Your task to perform on an android device: check data usage Image 0: 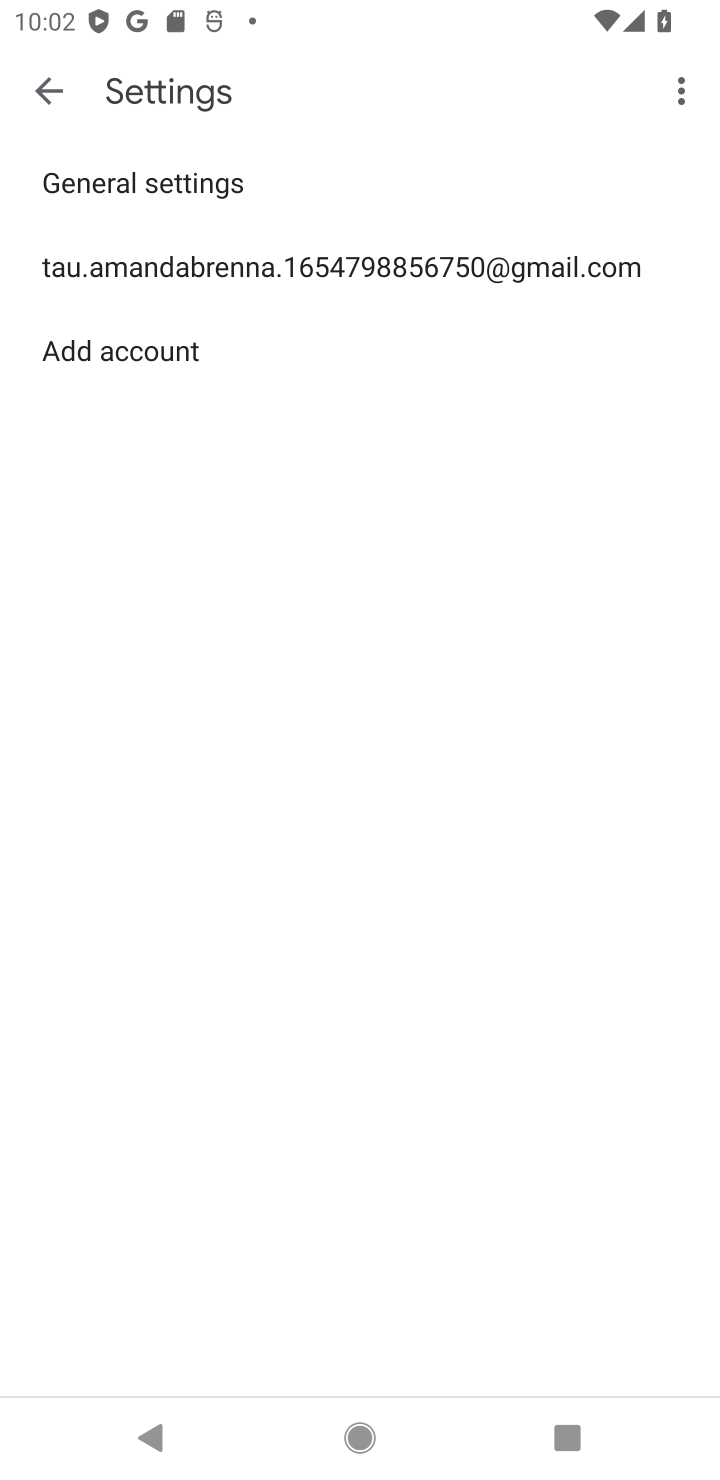
Step 0: press home button
Your task to perform on an android device: check data usage Image 1: 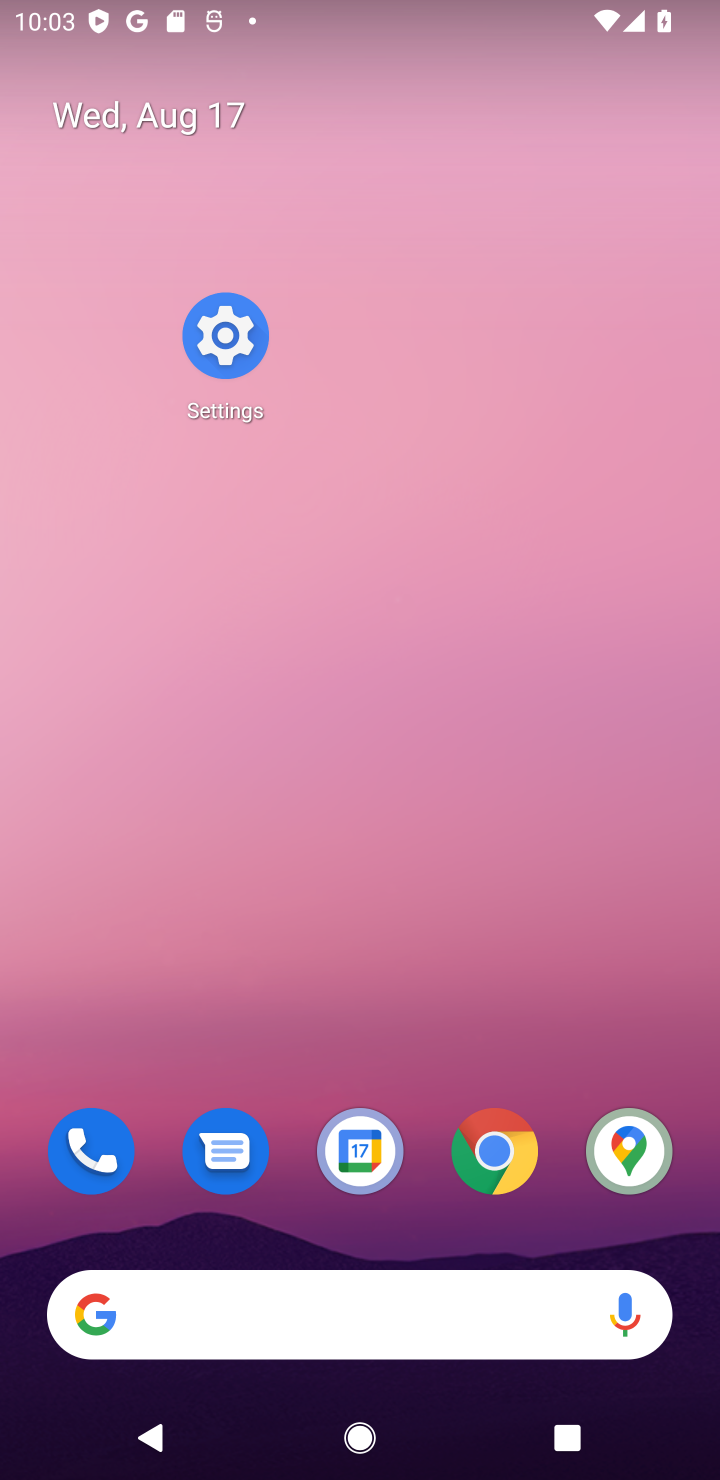
Step 1: drag from (364, 1193) to (370, 56)
Your task to perform on an android device: check data usage Image 2: 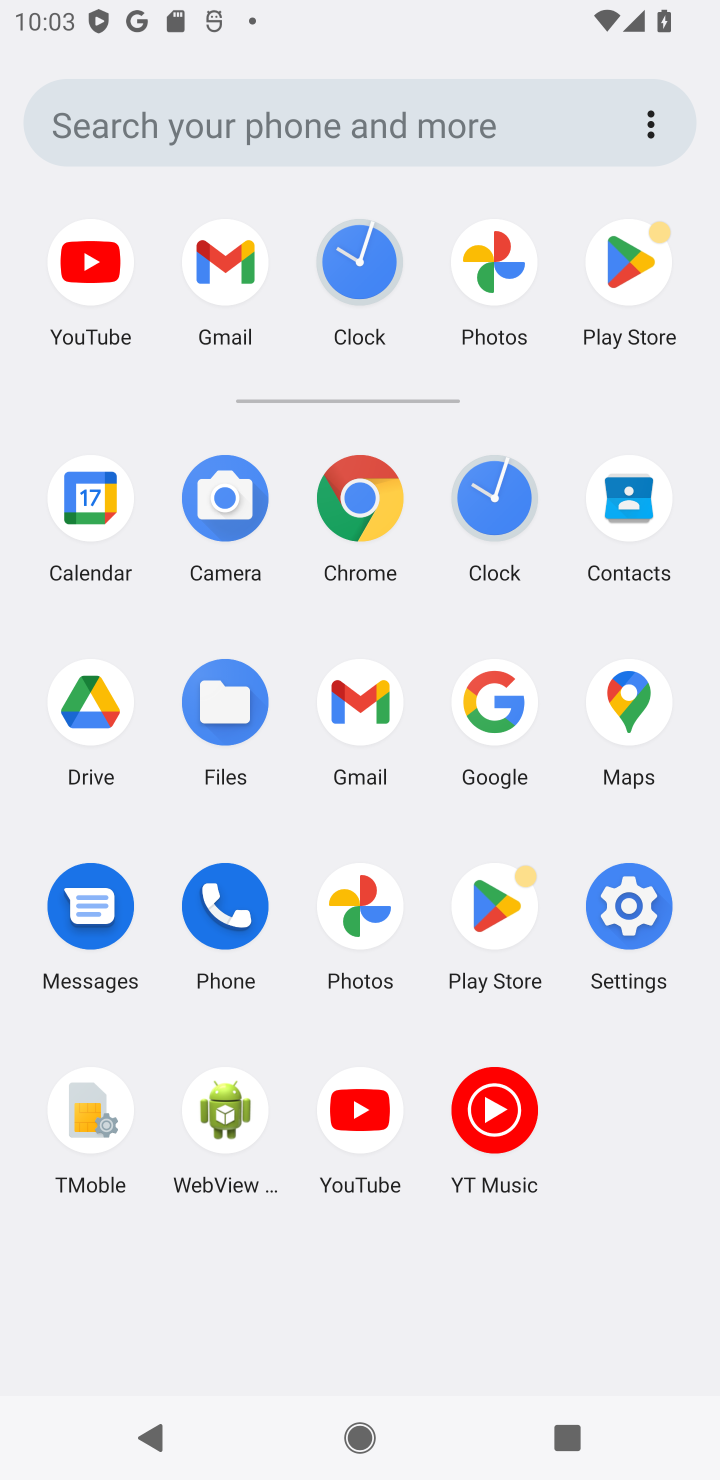
Step 2: click (625, 916)
Your task to perform on an android device: check data usage Image 3: 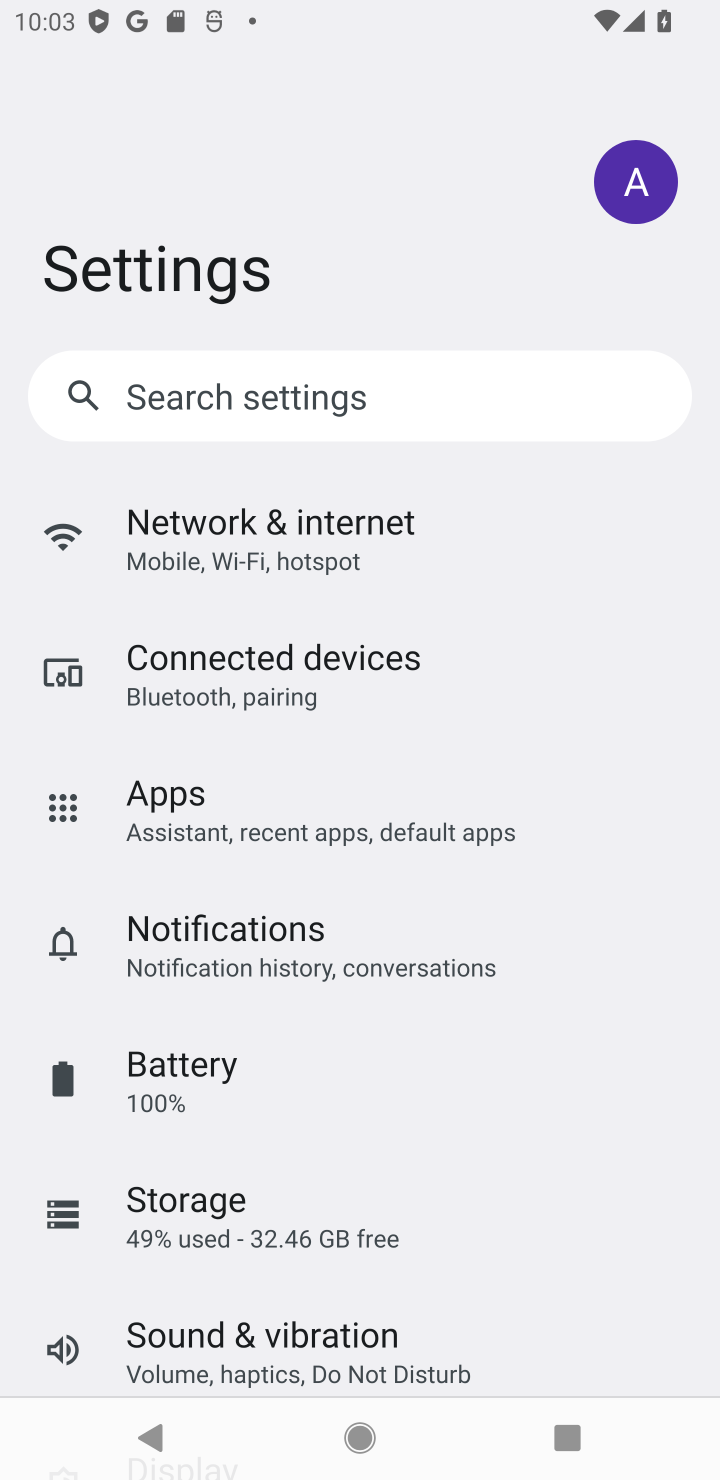
Step 3: click (280, 518)
Your task to perform on an android device: check data usage Image 4: 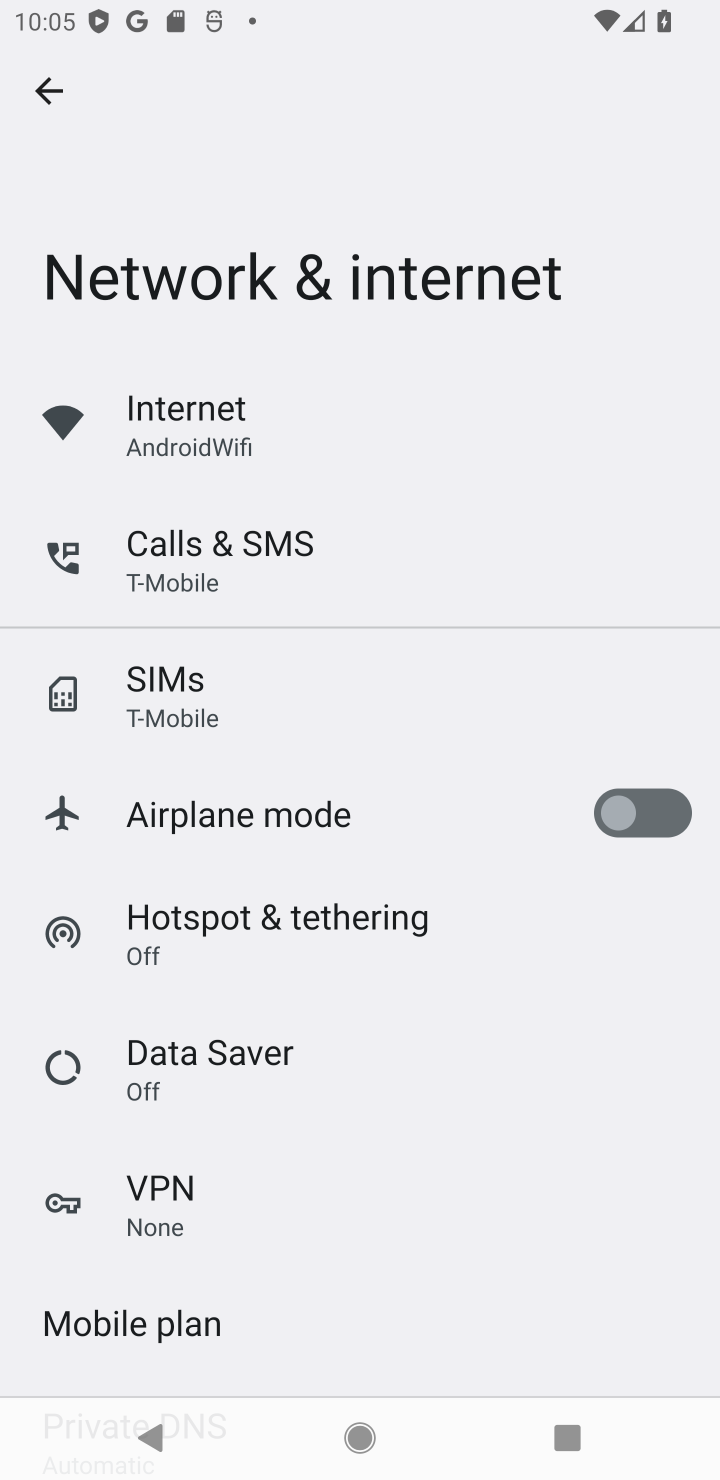
Step 4: click (204, 436)
Your task to perform on an android device: check data usage Image 5: 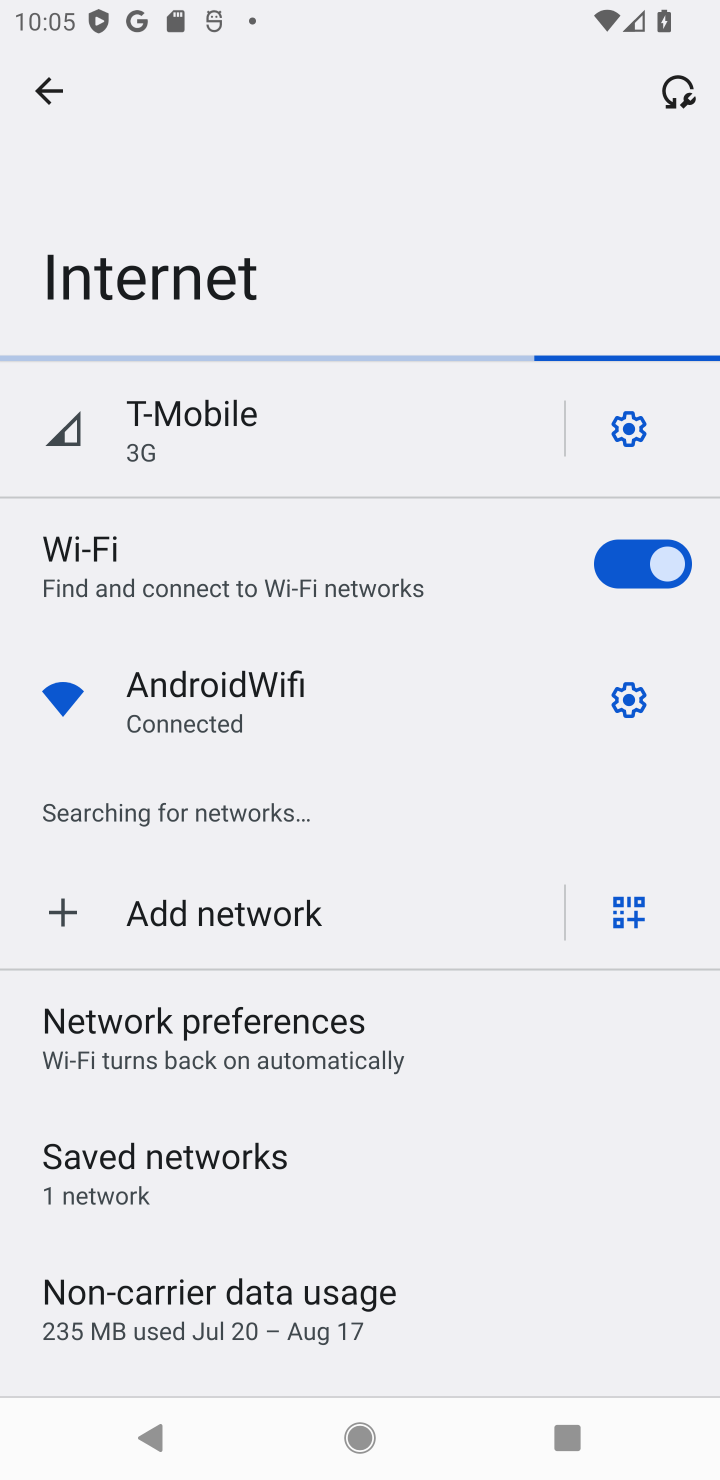
Step 5: click (211, 436)
Your task to perform on an android device: check data usage Image 6: 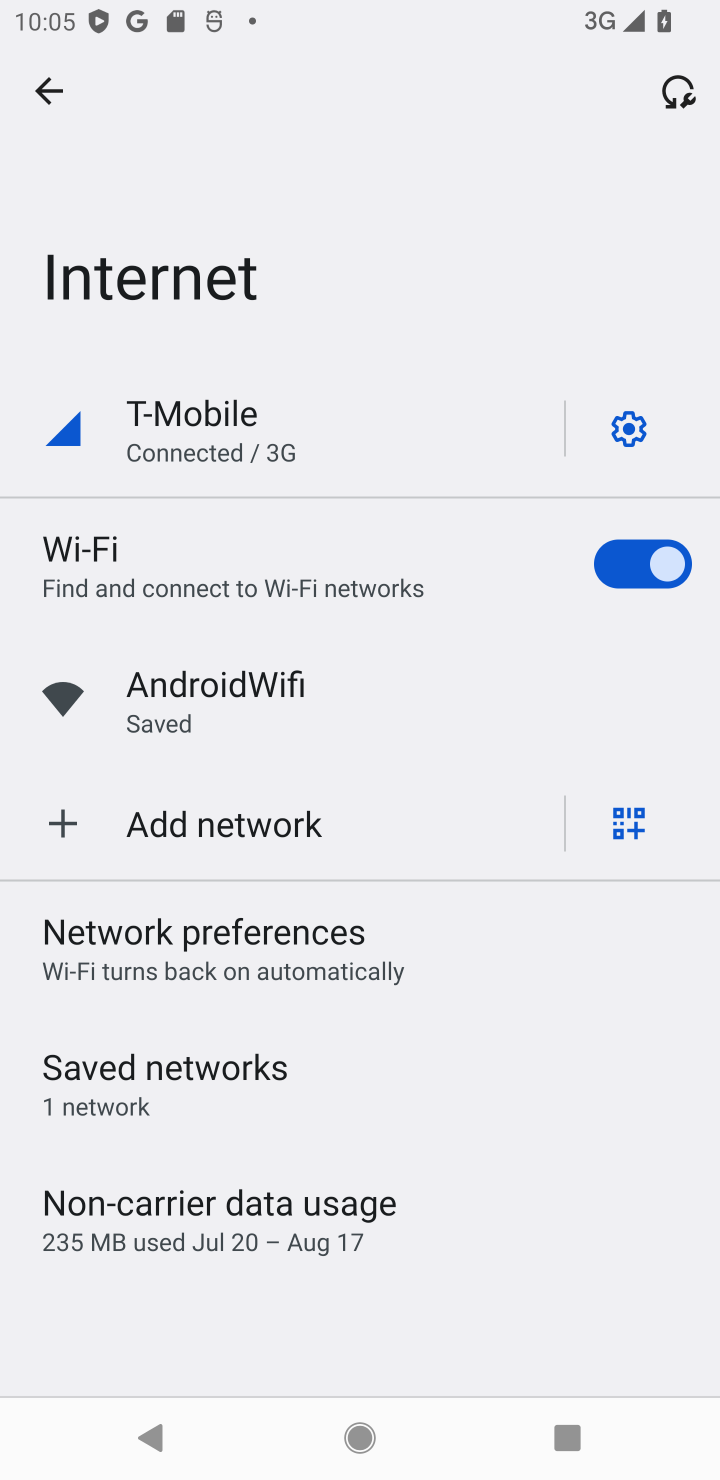
Step 6: click (234, 1229)
Your task to perform on an android device: check data usage Image 7: 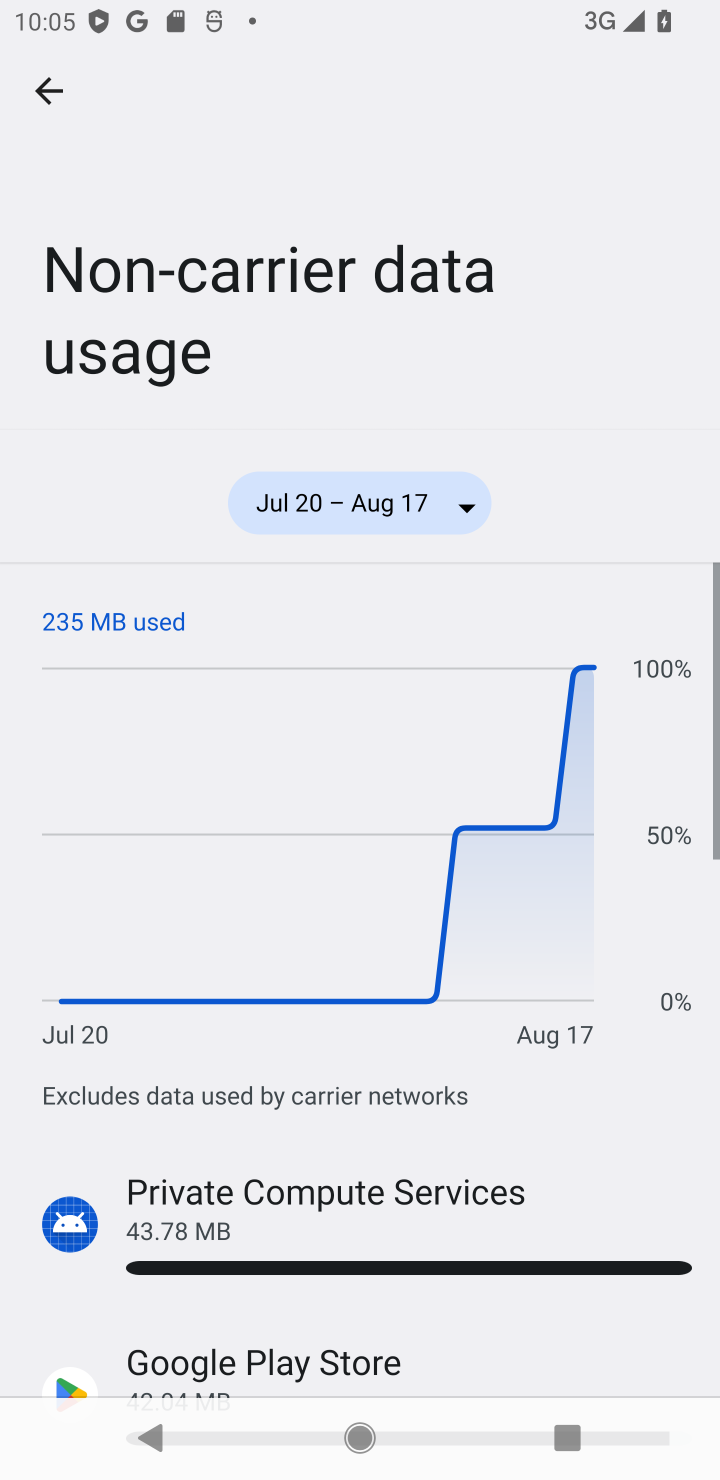
Step 7: task complete